Your task to perform on an android device: toggle show notifications on the lock screen Image 0: 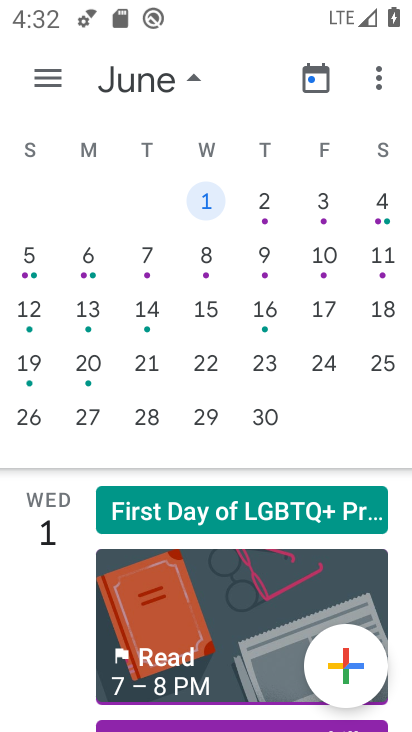
Step 0: click (384, 324)
Your task to perform on an android device: toggle show notifications on the lock screen Image 1: 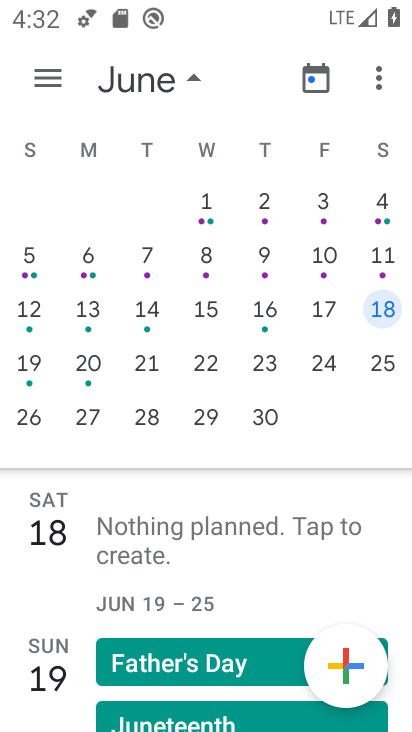
Step 1: press home button
Your task to perform on an android device: toggle show notifications on the lock screen Image 2: 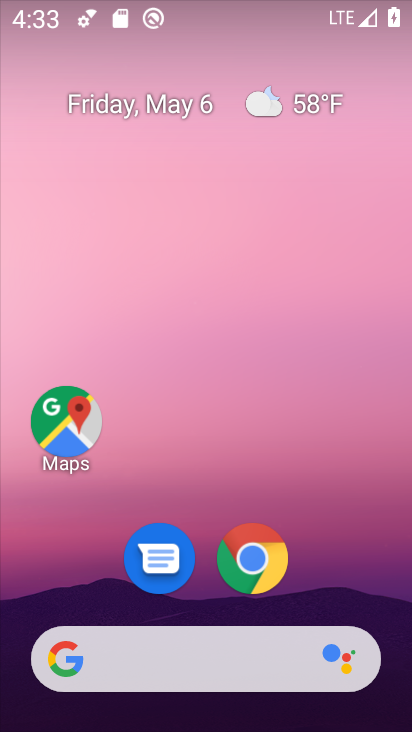
Step 2: drag from (284, 634) to (274, 83)
Your task to perform on an android device: toggle show notifications on the lock screen Image 3: 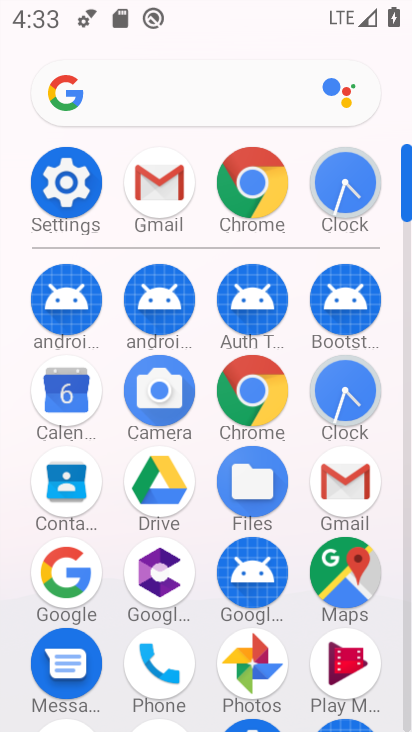
Step 3: click (76, 201)
Your task to perform on an android device: toggle show notifications on the lock screen Image 4: 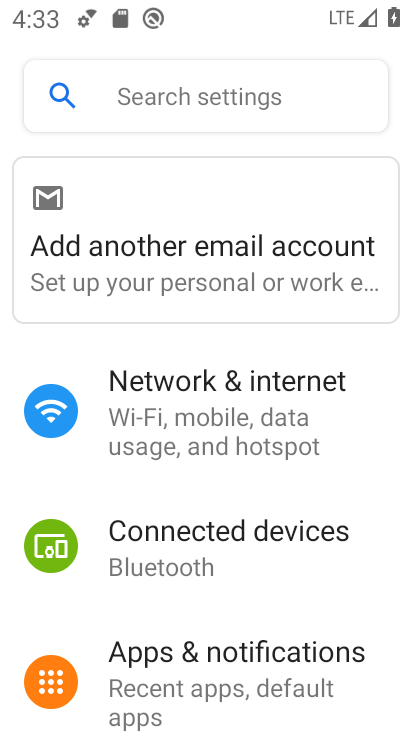
Step 4: click (189, 679)
Your task to perform on an android device: toggle show notifications on the lock screen Image 5: 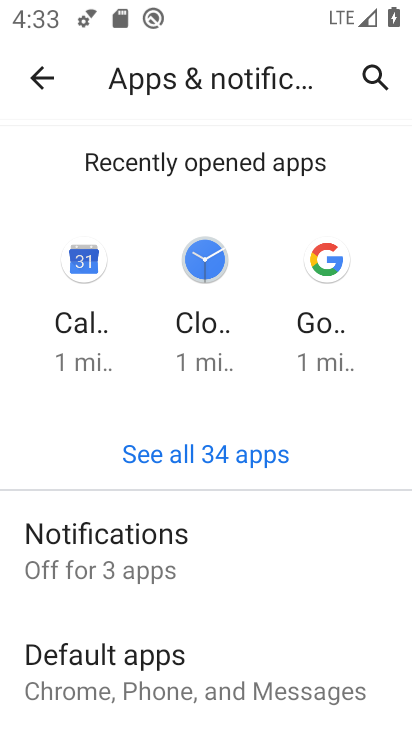
Step 5: drag from (270, 673) to (244, 214)
Your task to perform on an android device: toggle show notifications on the lock screen Image 6: 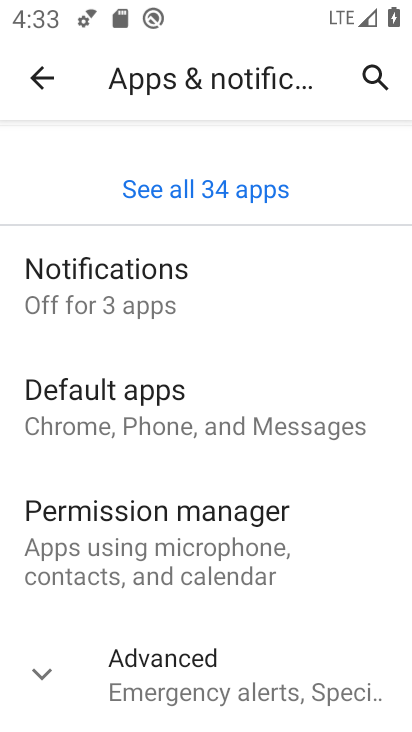
Step 6: click (163, 301)
Your task to perform on an android device: toggle show notifications on the lock screen Image 7: 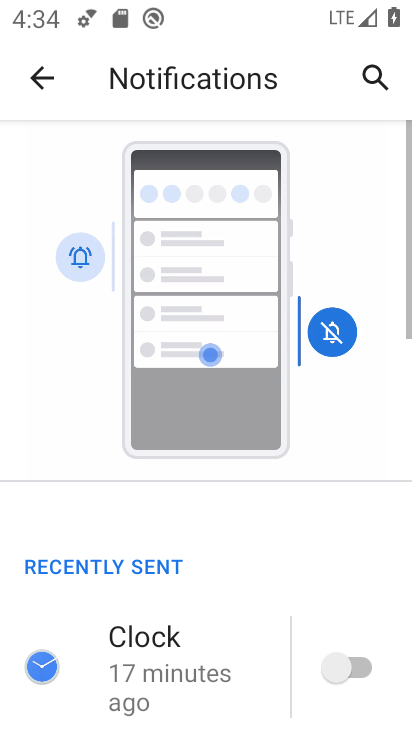
Step 7: drag from (262, 698) to (267, 122)
Your task to perform on an android device: toggle show notifications on the lock screen Image 8: 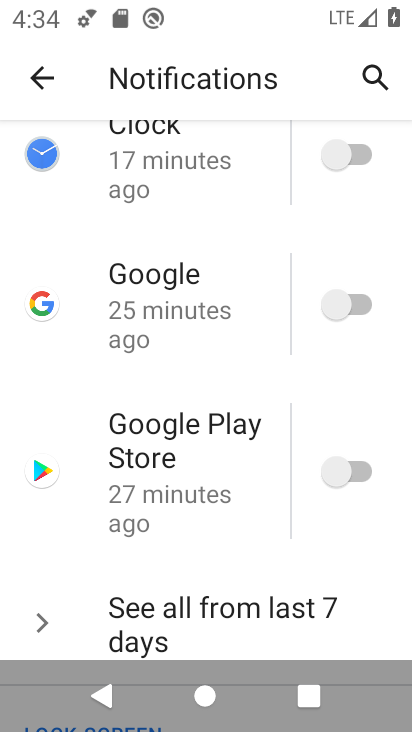
Step 8: drag from (246, 601) to (229, 140)
Your task to perform on an android device: toggle show notifications on the lock screen Image 9: 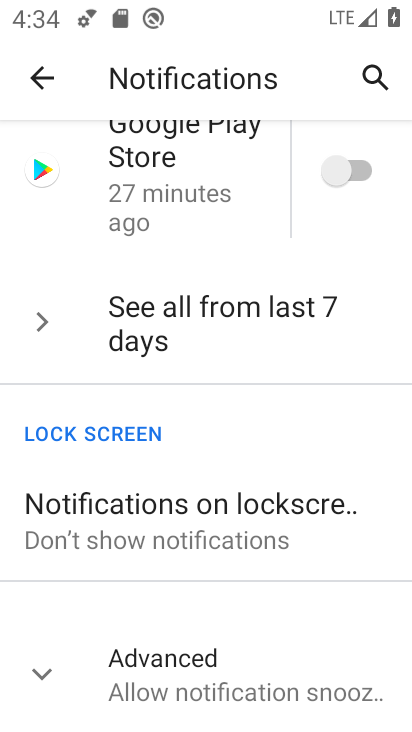
Step 9: click (223, 516)
Your task to perform on an android device: toggle show notifications on the lock screen Image 10: 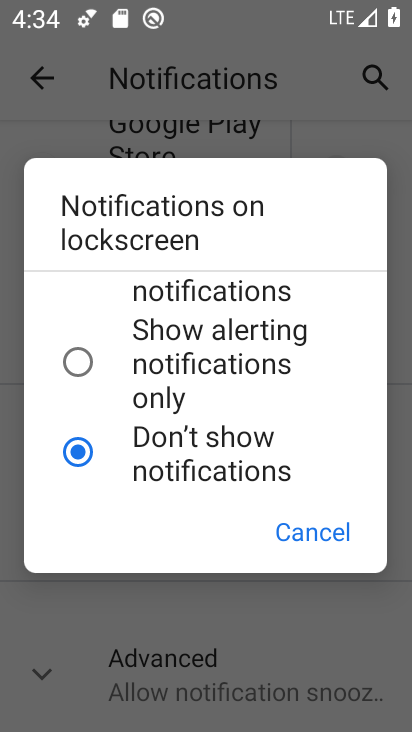
Step 10: drag from (217, 327) to (212, 508)
Your task to perform on an android device: toggle show notifications on the lock screen Image 11: 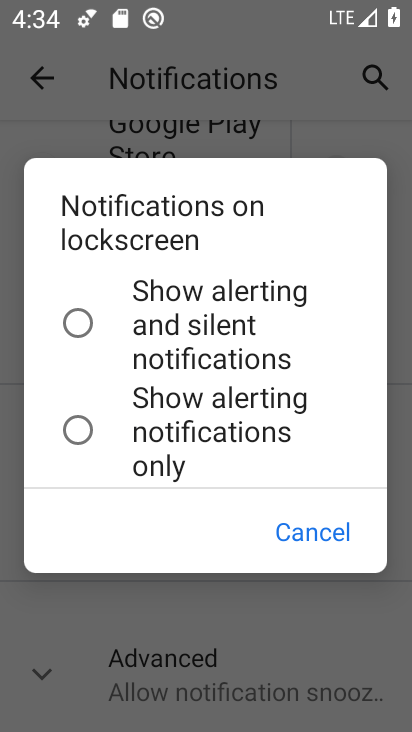
Step 11: click (80, 316)
Your task to perform on an android device: toggle show notifications on the lock screen Image 12: 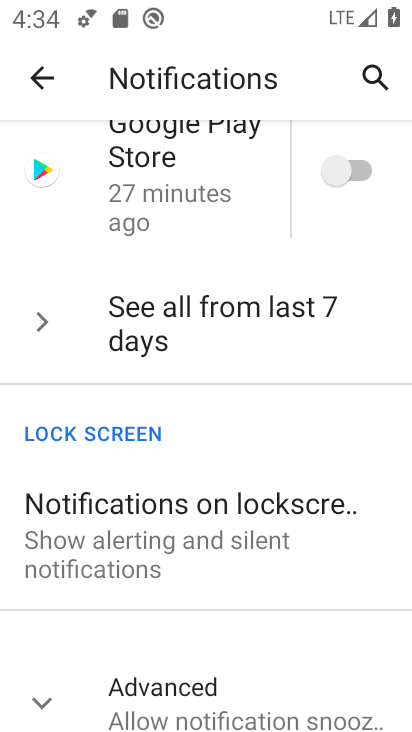
Step 12: task complete